Your task to perform on an android device: Open Maps and search for coffee Image 0: 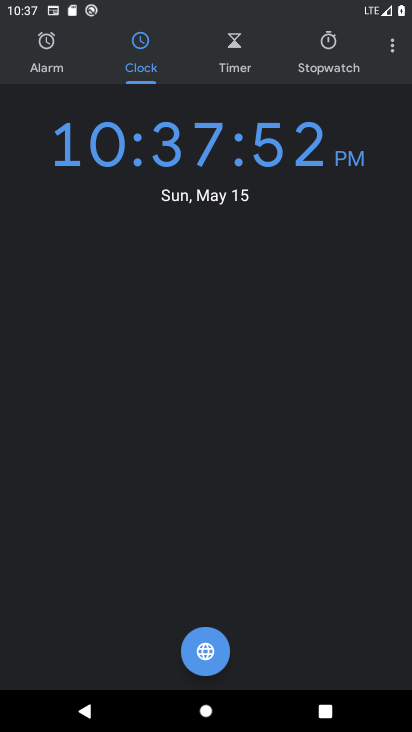
Step 0: press home button
Your task to perform on an android device: Open Maps and search for coffee Image 1: 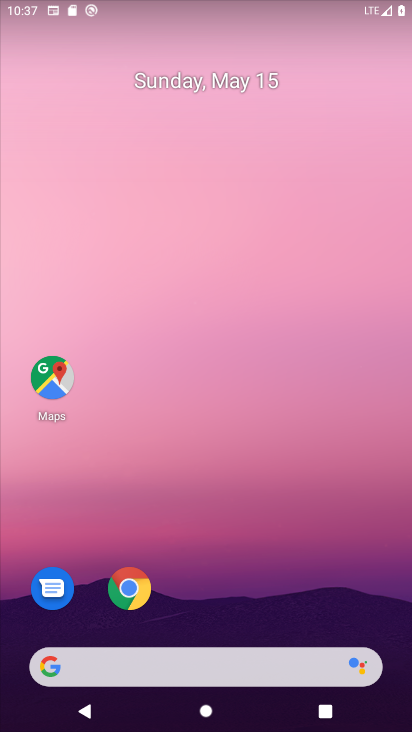
Step 1: click (46, 373)
Your task to perform on an android device: Open Maps and search for coffee Image 2: 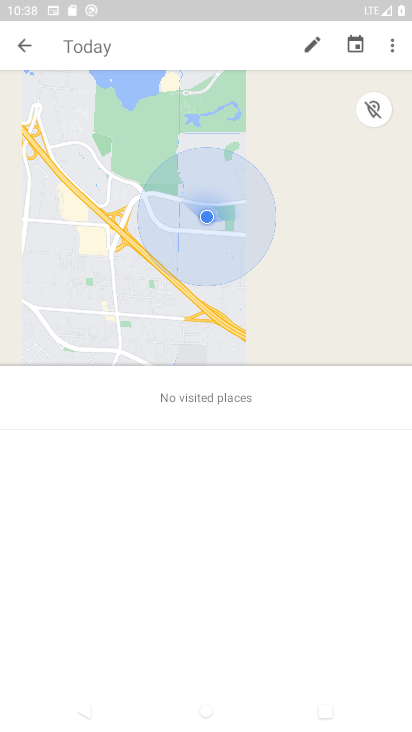
Step 2: click (20, 47)
Your task to perform on an android device: Open Maps and search for coffee Image 3: 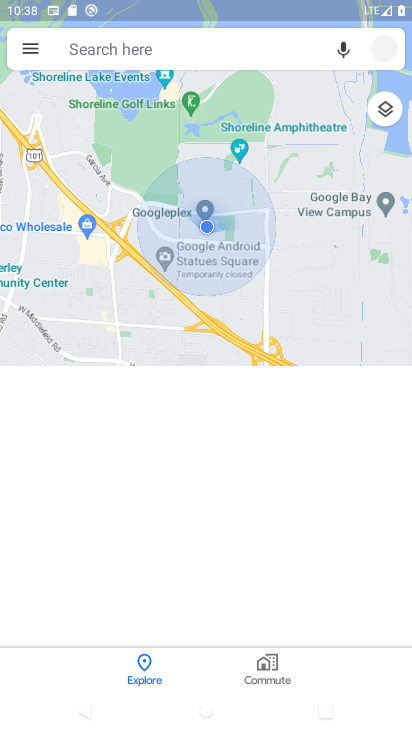
Step 3: click (128, 45)
Your task to perform on an android device: Open Maps and search for coffee Image 4: 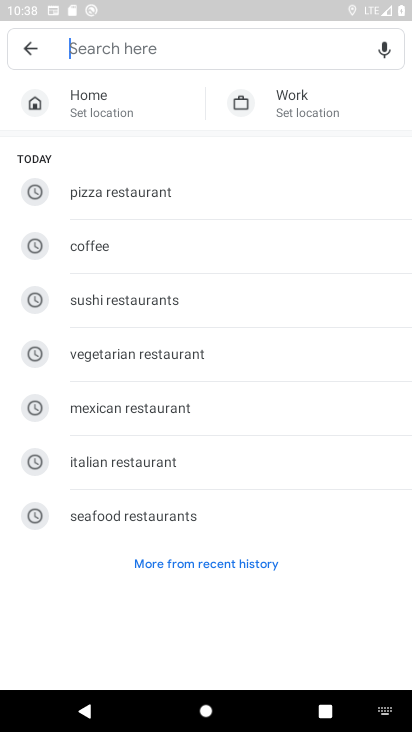
Step 4: click (130, 252)
Your task to perform on an android device: Open Maps and search for coffee Image 5: 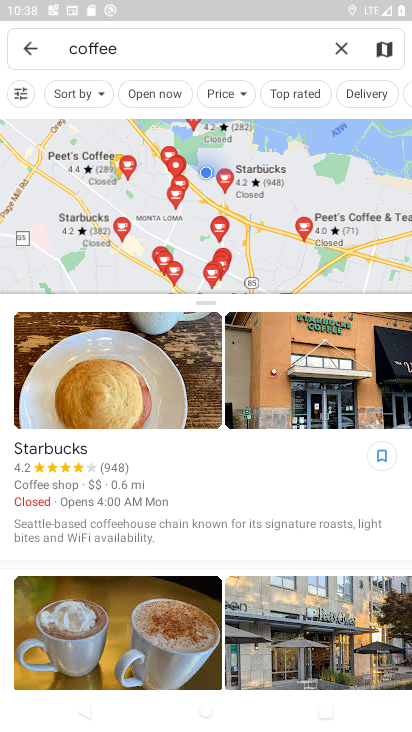
Step 5: task complete